Your task to perform on an android device: set the stopwatch Image 0: 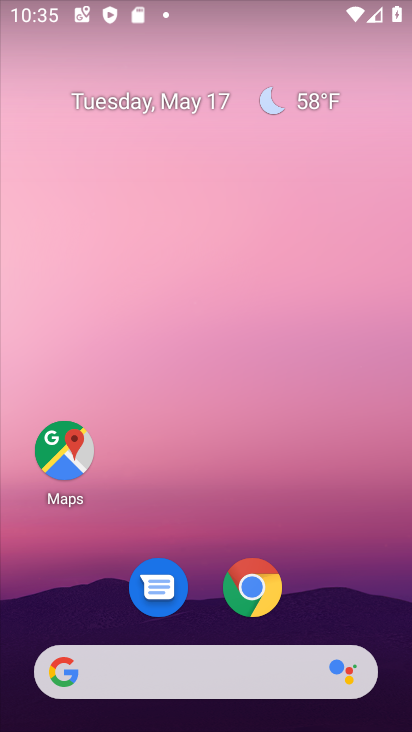
Step 0: drag from (331, 597) to (274, 93)
Your task to perform on an android device: set the stopwatch Image 1: 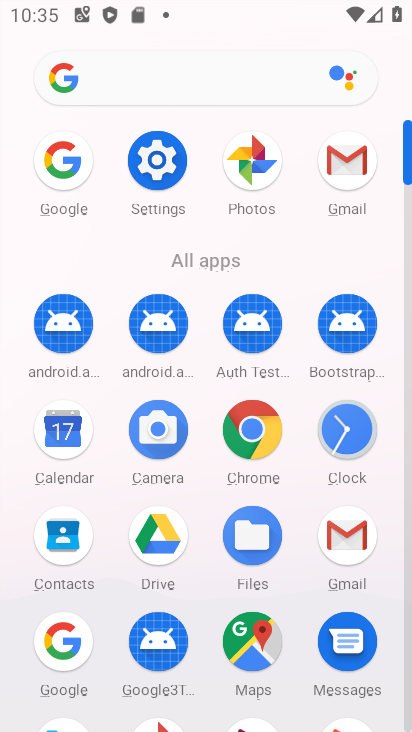
Step 1: click (350, 430)
Your task to perform on an android device: set the stopwatch Image 2: 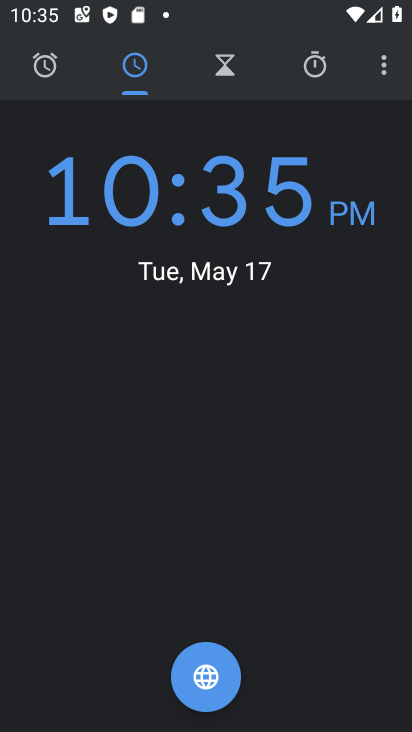
Step 2: click (317, 67)
Your task to perform on an android device: set the stopwatch Image 3: 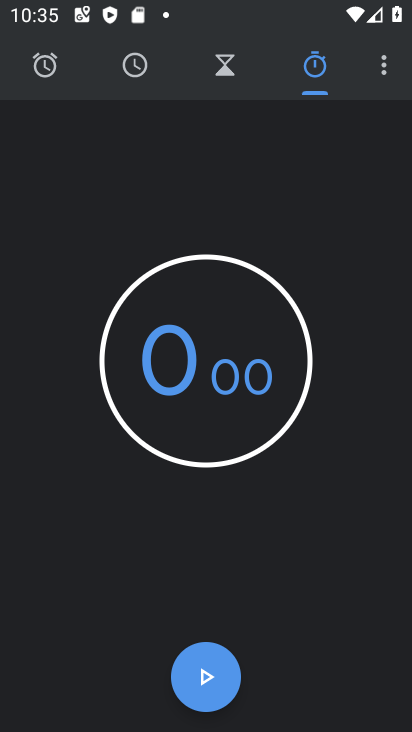
Step 3: click (207, 367)
Your task to perform on an android device: set the stopwatch Image 4: 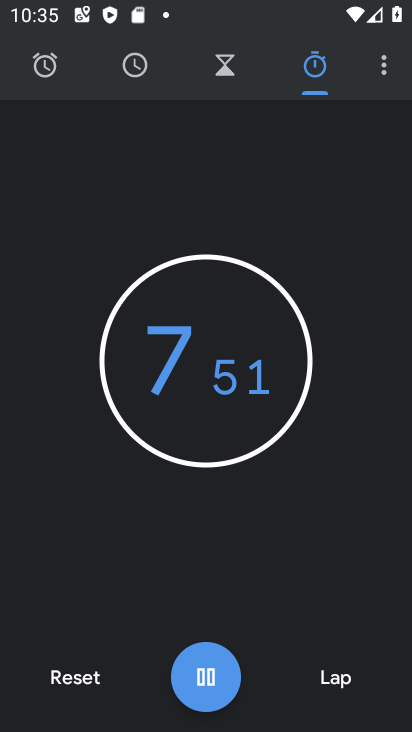
Step 4: click (208, 366)
Your task to perform on an android device: set the stopwatch Image 5: 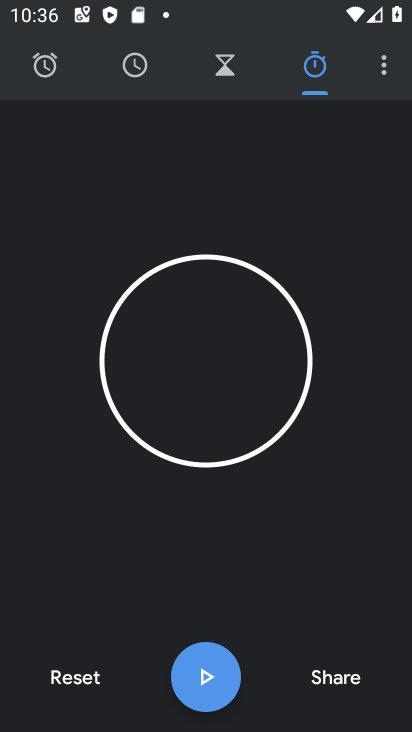
Step 5: task complete